Your task to perform on an android device: Open Android settings Image 0: 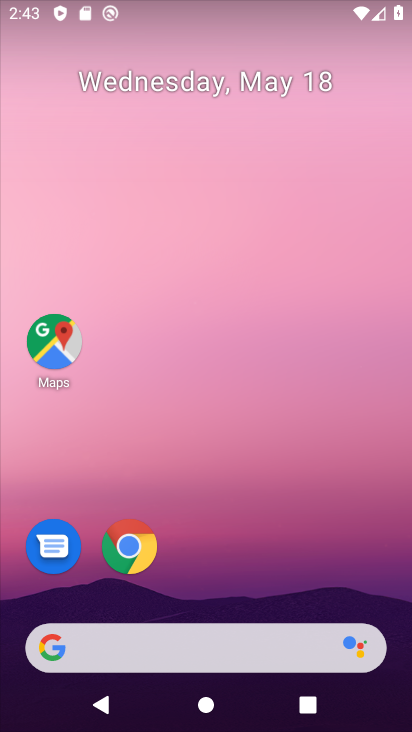
Step 0: drag from (227, 631) to (313, 77)
Your task to perform on an android device: Open Android settings Image 1: 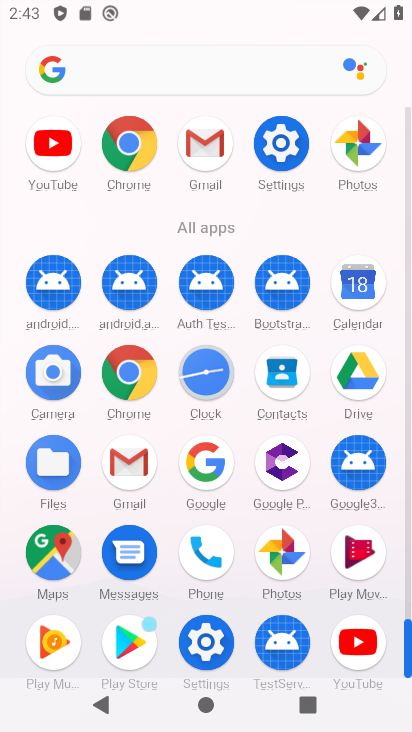
Step 1: drag from (204, 584) to (257, 340)
Your task to perform on an android device: Open Android settings Image 2: 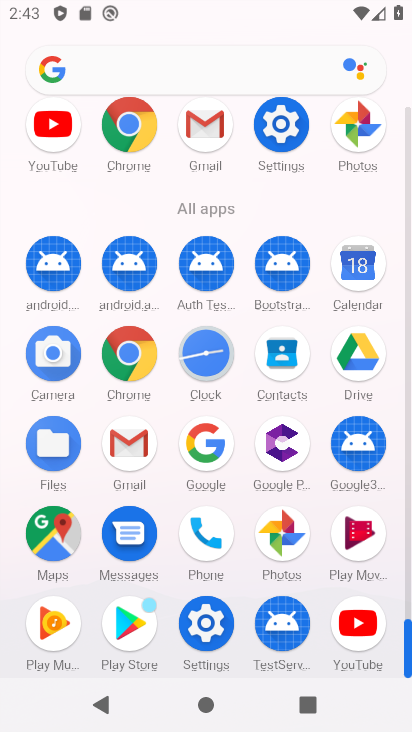
Step 2: click (210, 618)
Your task to perform on an android device: Open Android settings Image 3: 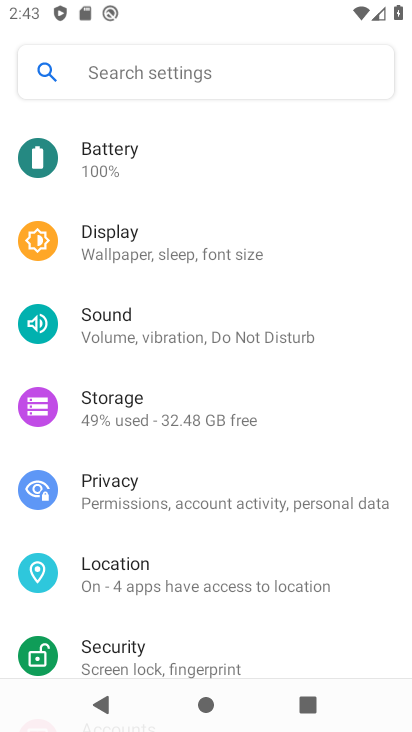
Step 3: task complete